Your task to perform on an android device: Turn off the flashlight Image 0: 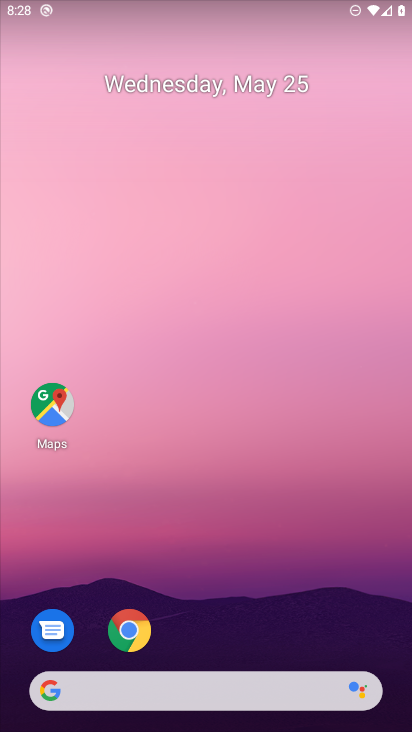
Step 0: drag from (239, 0) to (250, 400)
Your task to perform on an android device: Turn off the flashlight Image 1: 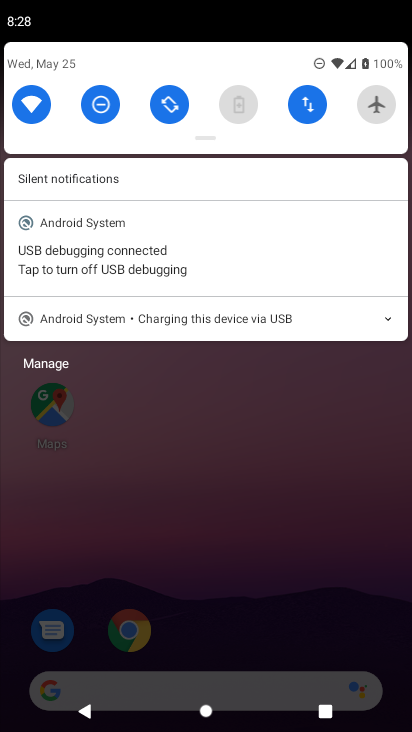
Step 1: drag from (275, 102) to (283, 443)
Your task to perform on an android device: Turn off the flashlight Image 2: 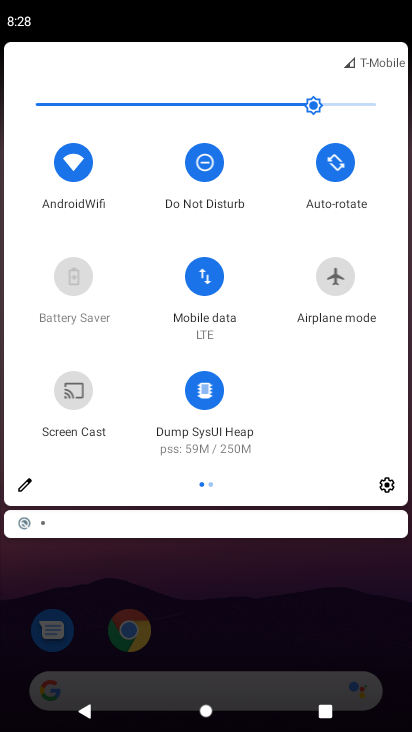
Step 2: drag from (354, 351) to (0, 501)
Your task to perform on an android device: Turn off the flashlight Image 3: 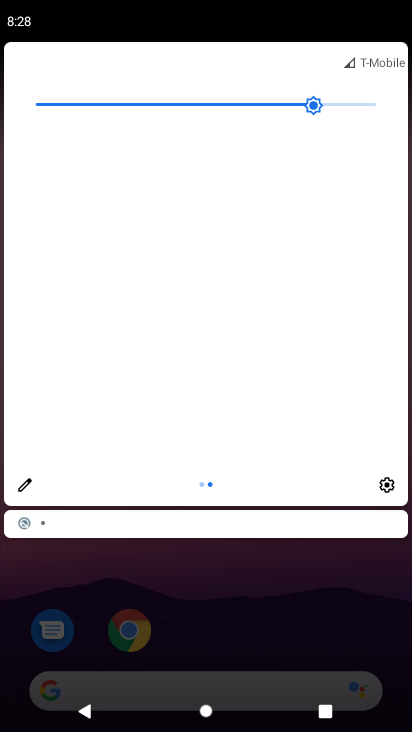
Step 3: click (21, 487)
Your task to perform on an android device: Turn off the flashlight Image 4: 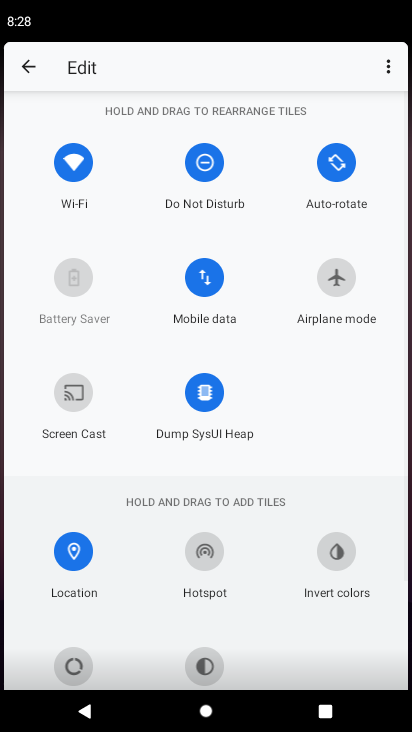
Step 4: task complete